Your task to perform on an android device: open wifi settings Image 0: 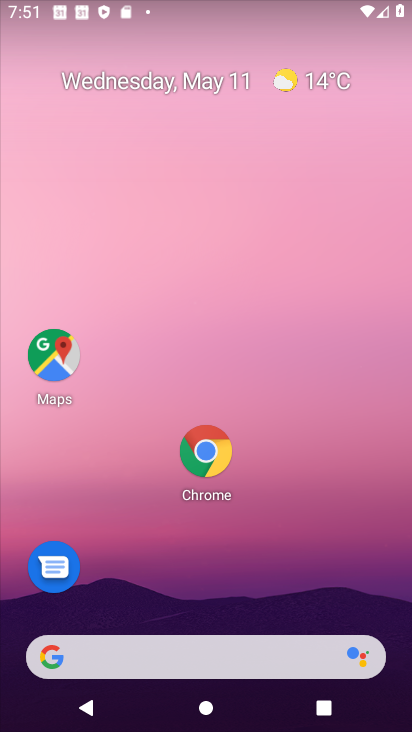
Step 0: drag from (179, 662) to (311, 201)
Your task to perform on an android device: open wifi settings Image 1: 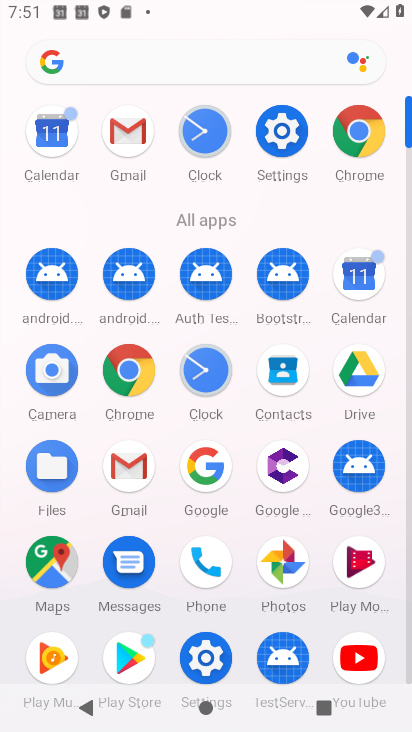
Step 1: click (296, 127)
Your task to perform on an android device: open wifi settings Image 2: 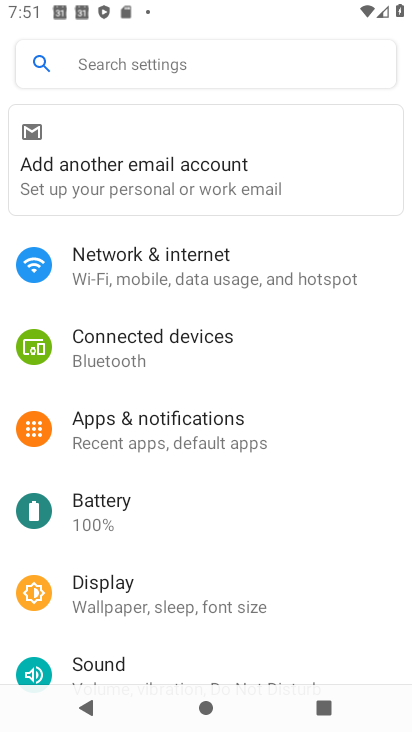
Step 2: click (169, 268)
Your task to perform on an android device: open wifi settings Image 3: 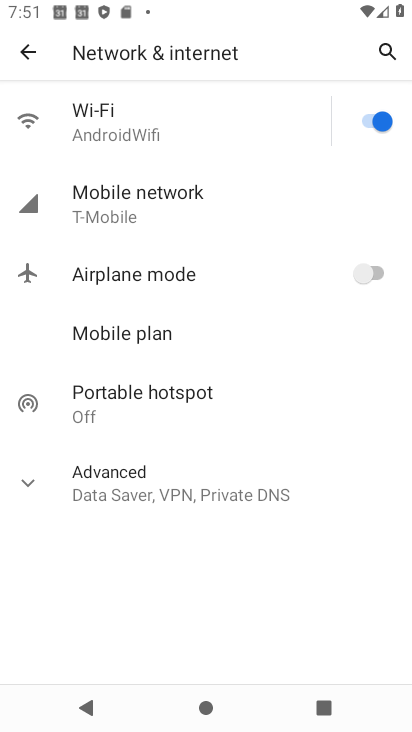
Step 3: click (142, 132)
Your task to perform on an android device: open wifi settings Image 4: 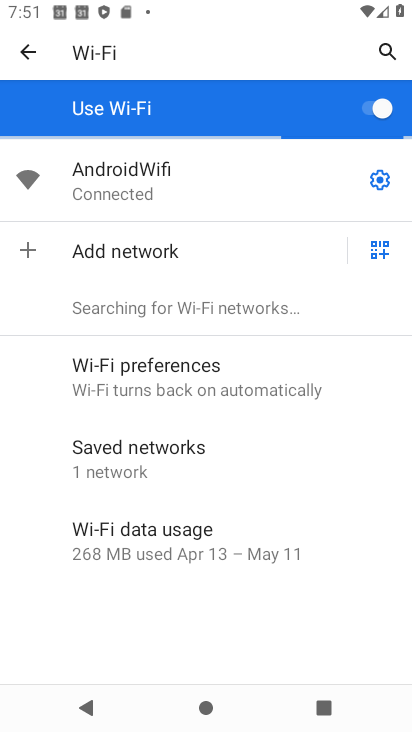
Step 4: task complete